Your task to perform on an android device: Open Yahoo.com Image 0: 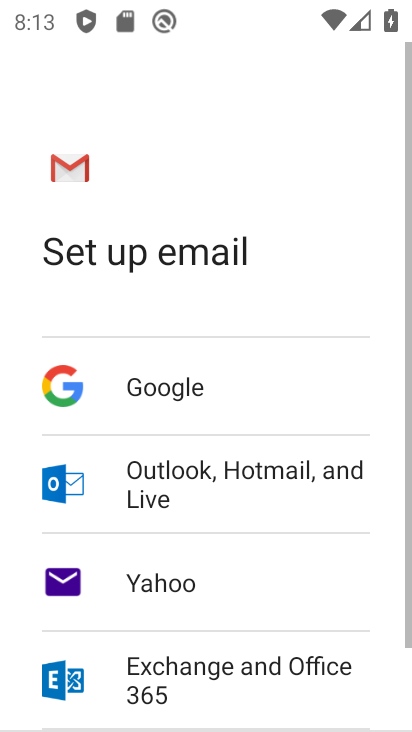
Step 0: press home button
Your task to perform on an android device: Open Yahoo.com Image 1: 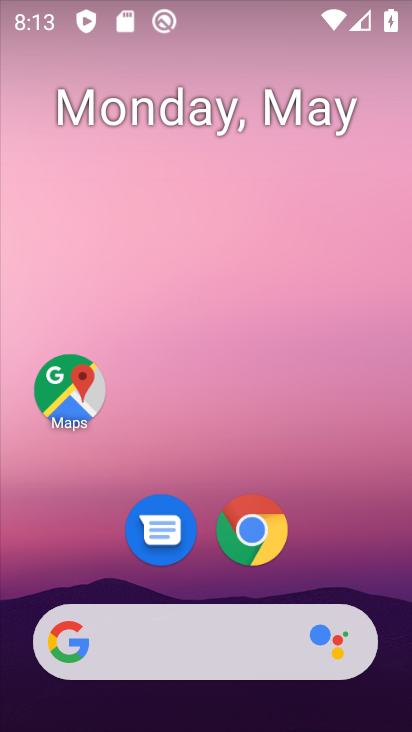
Step 1: click (261, 540)
Your task to perform on an android device: Open Yahoo.com Image 2: 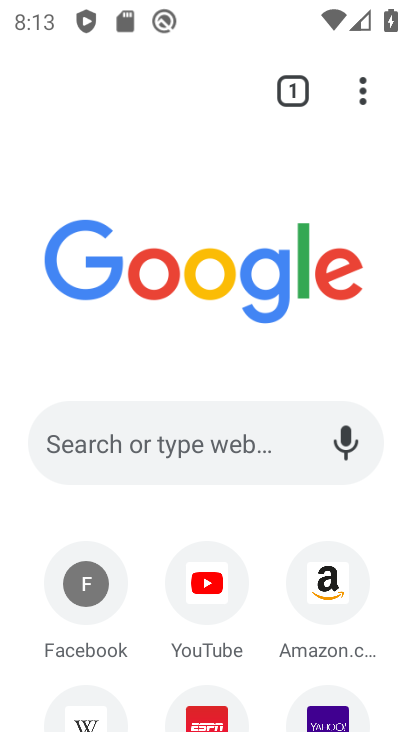
Step 2: click (311, 700)
Your task to perform on an android device: Open Yahoo.com Image 3: 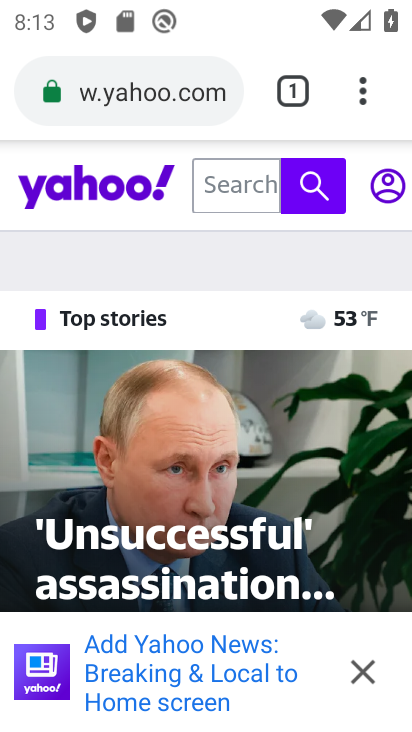
Step 3: task complete